Your task to perform on an android device: turn off notifications in google photos Image 0: 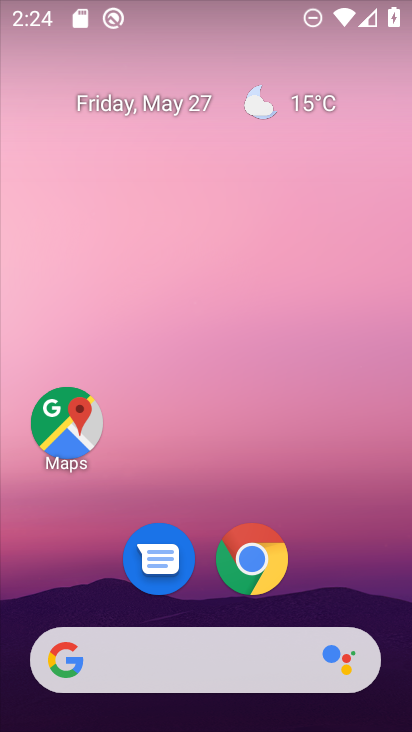
Step 0: drag from (366, 643) to (361, 145)
Your task to perform on an android device: turn off notifications in google photos Image 1: 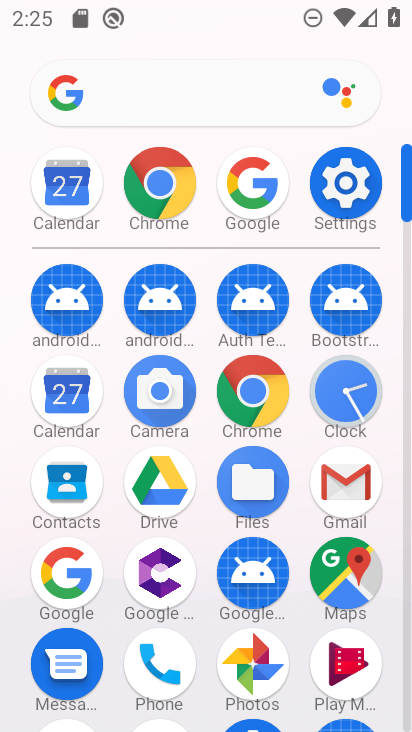
Step 1: click (236, 663)
Your task to perform on an android device: turn off notifications in google photos Image 2: 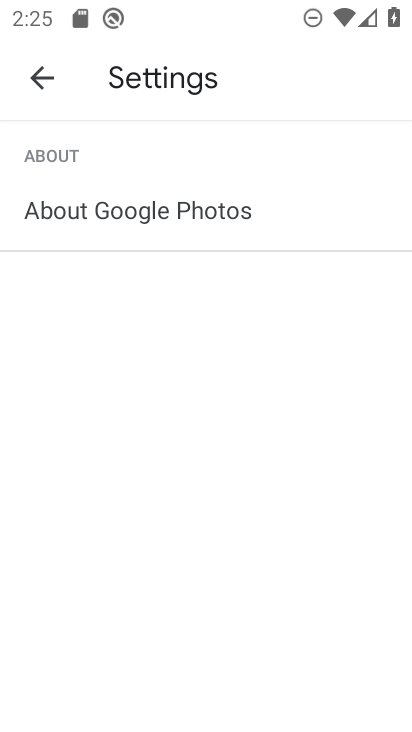
Step 2: press back button
Your task to perform on an android device: turn off notifications in google photos Image 3: 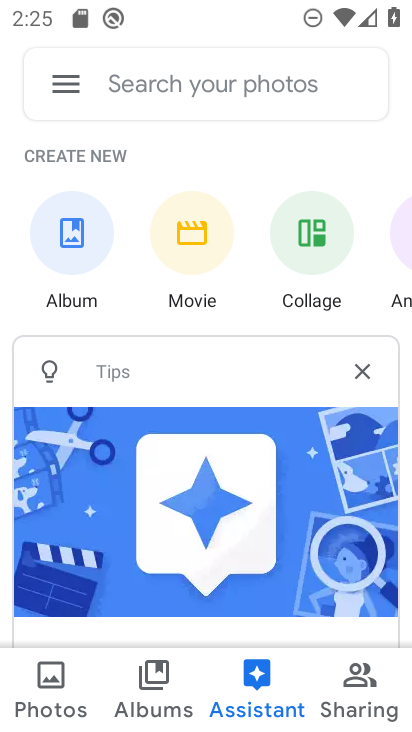
Step 3: click (46, 86)
Your task to perform on an android device: turn off notifications in google photos Image 4: 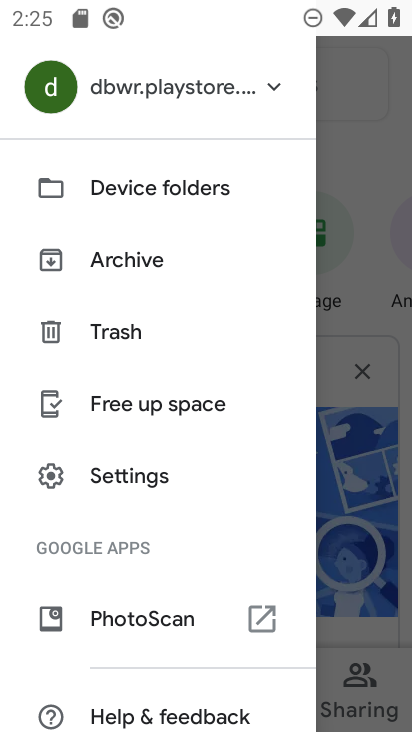
Step 4: click (151, 468)
Your task to perform on an android device: turn off notifications in google photos Image 5: 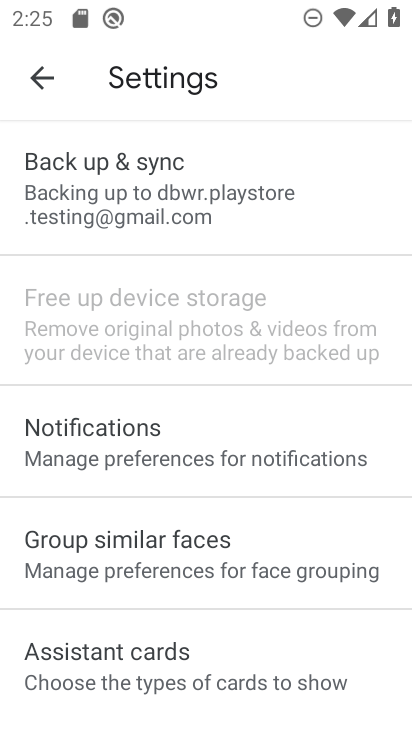
Step 5: click (176, 462)
Your task to perform on an android device: turn off notifications in google photos Image 6: 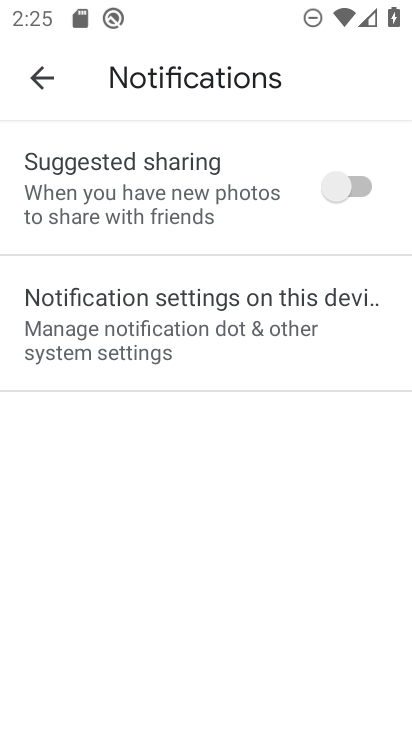
Step 6: click (251, 333)
Your task to perform on an android device: turn off notifications in google photos Image 7: 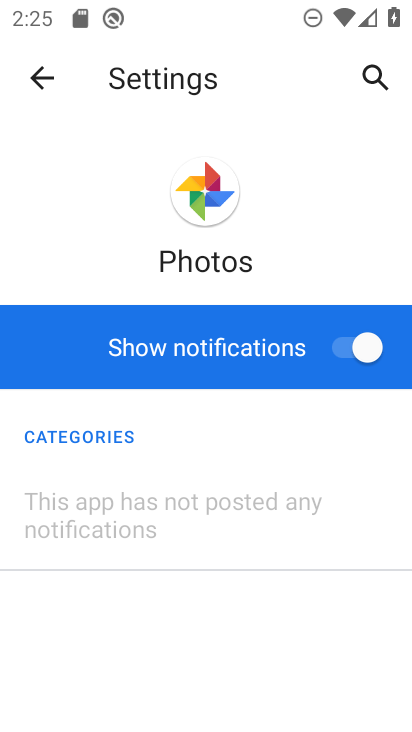
Step 7: task complete